Your task to perform on an android device: toggle improve location accuracy Image 0: 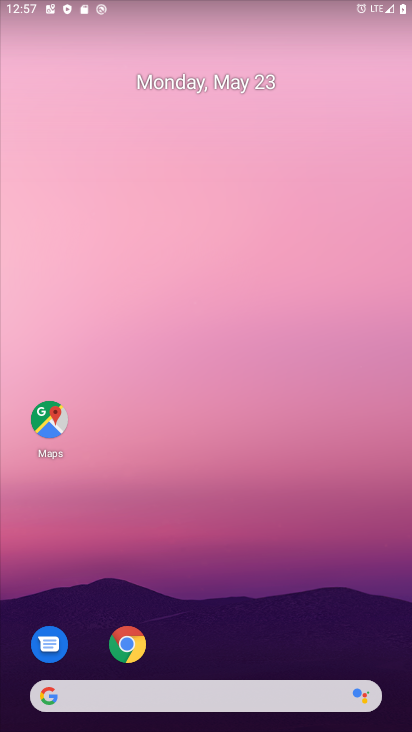
Step 0: drag from (330, 629) to (273, 70)
Your task to perform on an android device: toggle improve location accuracy Image 1: 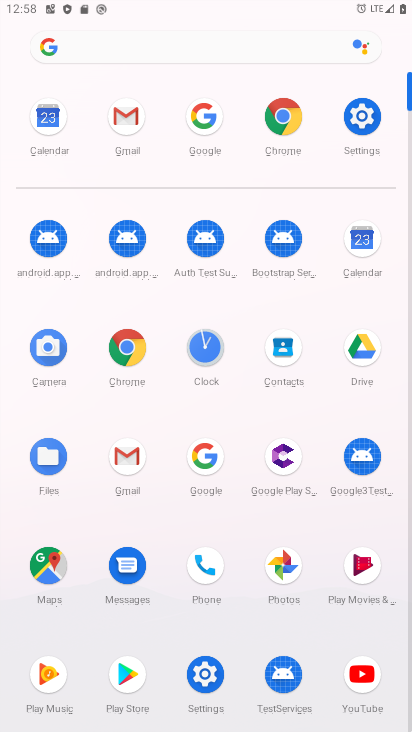
Step 1: click (360, 121)
Your task to perform on an android device: toggle improve location accuracy Image 2: 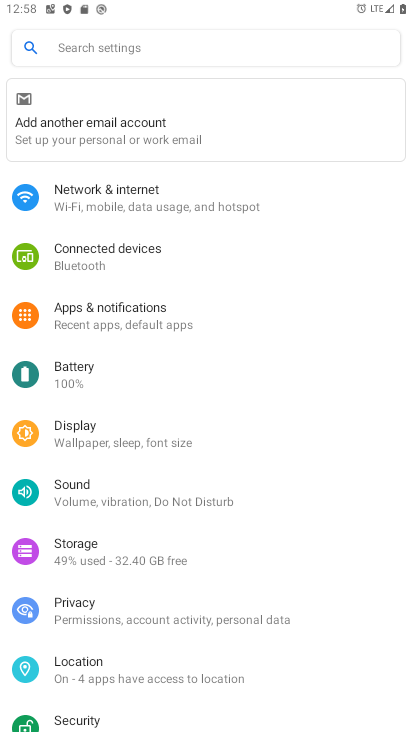
Step 2: click (95, 671)
Your task to perform on an android device: toggle improve location accuracy Image 3: 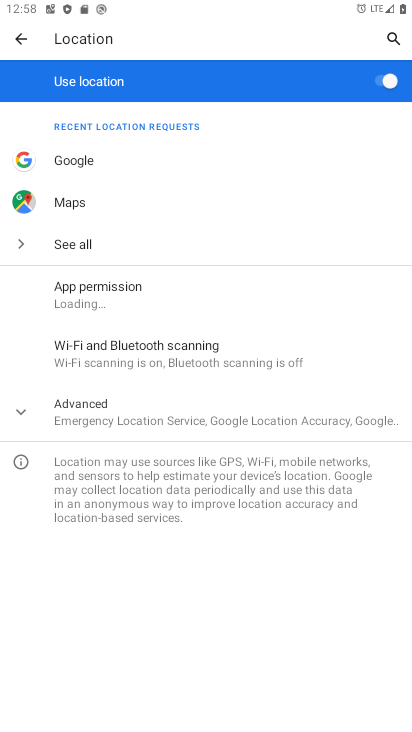
Step 3: click (100, 414)
Your task to perform on an android device: toggle improve location accuracy Image 4: 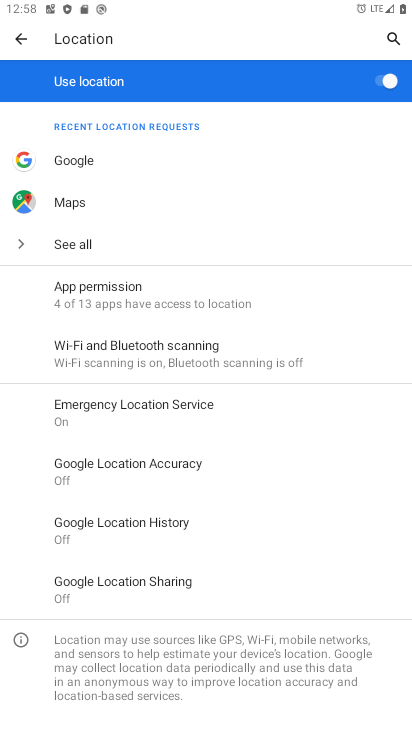
Step 4: click (171, 459)
Your task to perform on an android device: toggle improve location accuracy Image 5: 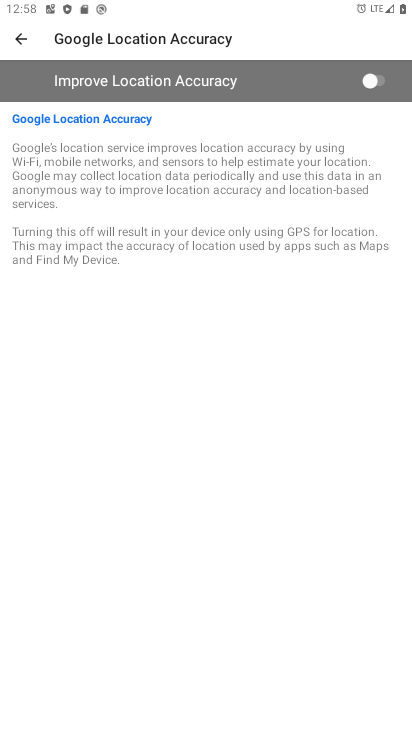
Step 5: click (342, 87)
Your task to perform on an android device: toggle improve location accuracy Image 6: 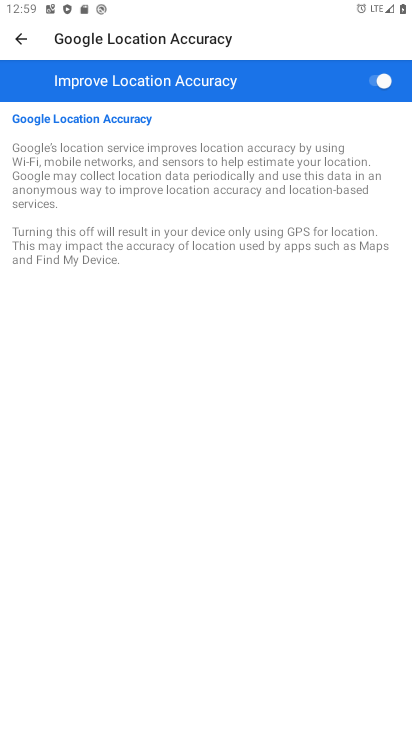
Step 6: task complete